Your task to perform on an android device: turn off location Image 0: 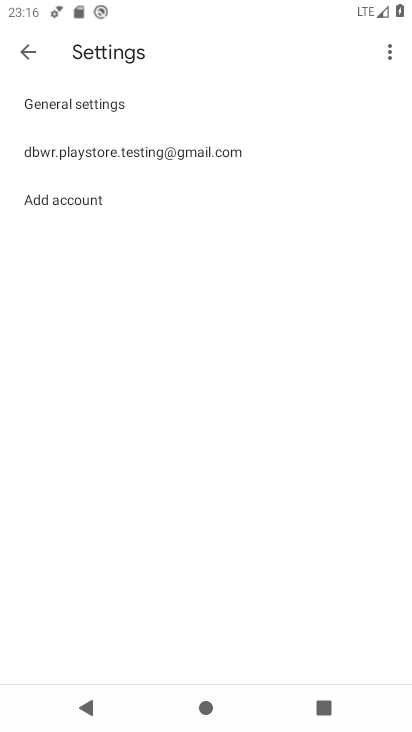
Step 0: press home button
Your task to perform on an android device: turn off location Image 1: 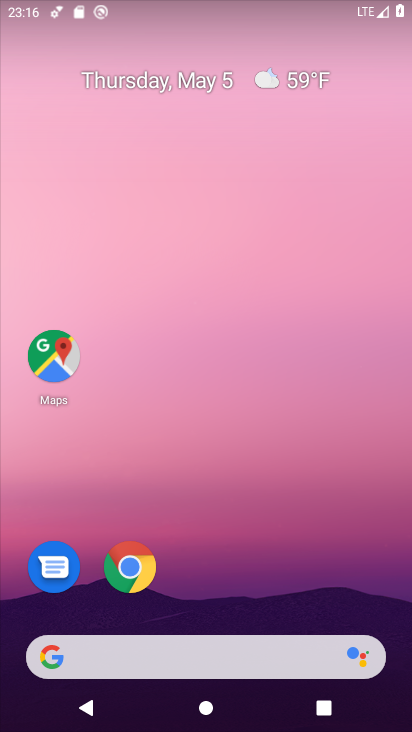
Step 1: drag from (301, 576) to (322, 7)
Your task to perform on an android device: turn off location Image 2: 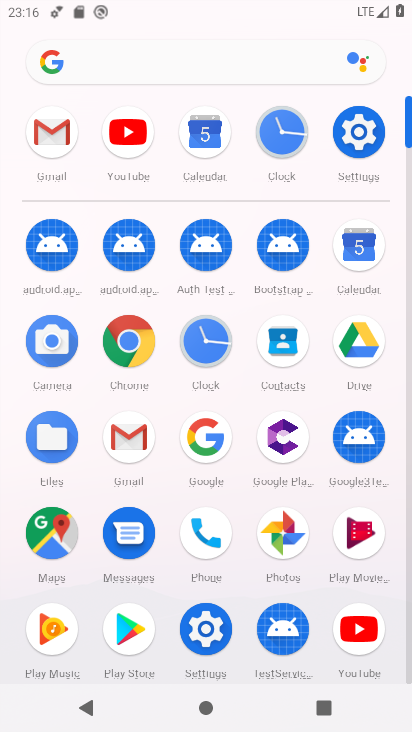
Step 2: click (366, 171)
Your task to perform on an android device: turn off location Image 3: 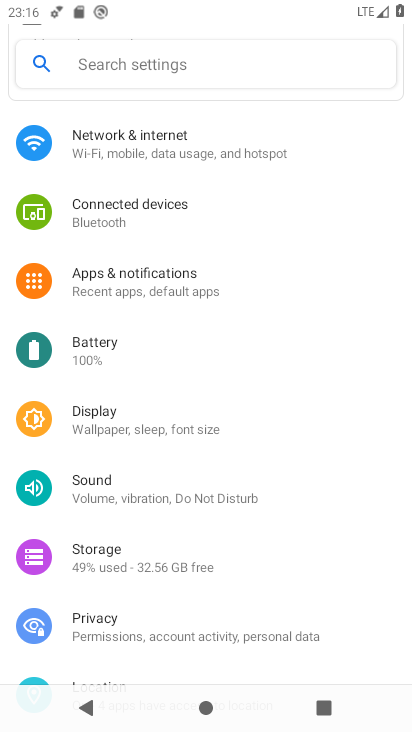
Step 3: drag from (309, 563) to (316, 224)
Your task to perform on an android device: turn off location Image 4: 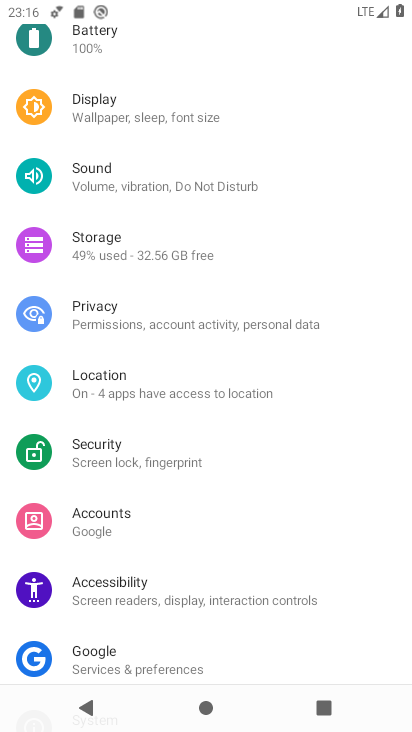
Step 4: click (118, 389)
Your task to perform on an android device: turn off location Image 5: 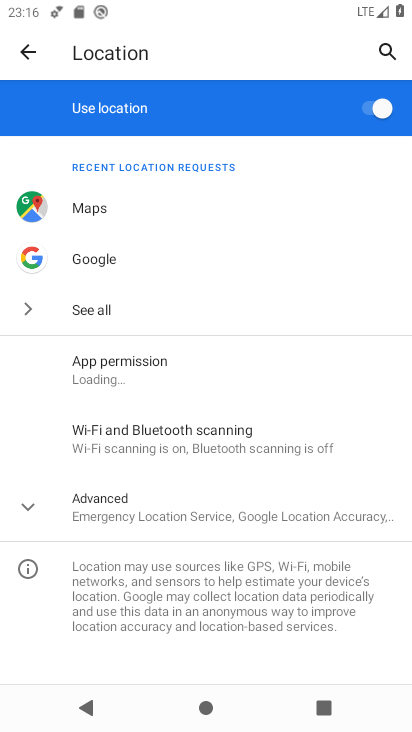
Step 5: click (376, 111)
Your task to perform on an android device: turn off location Image 6: 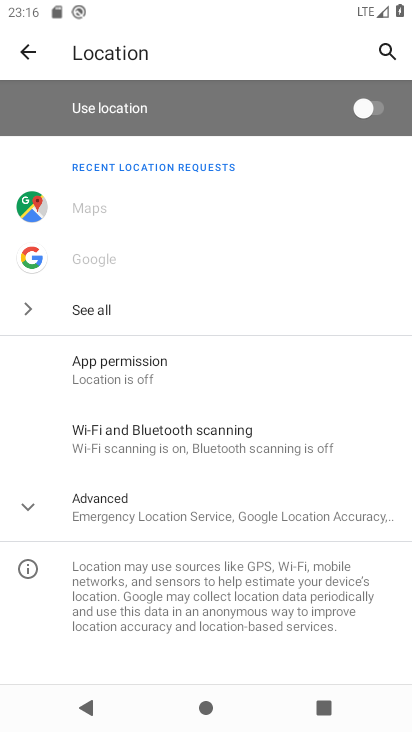
Step 6: task complete